Your task to perform on an android device: read, delete, or share a saved page in the chrome app Image 0: 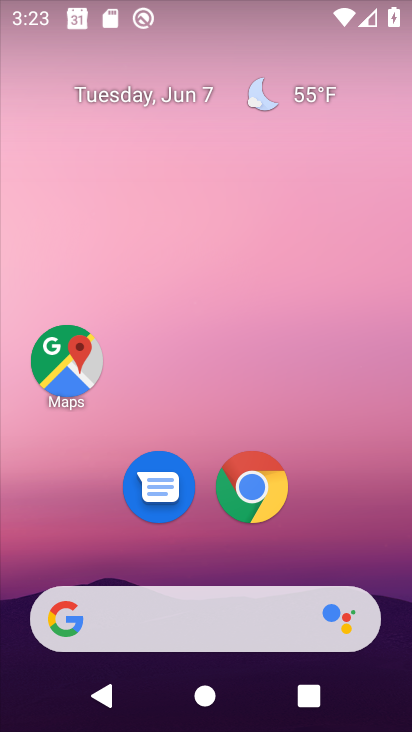
Step 0: click (259, 480)
Your task to perform on an android device: read, delete, or share a saved page in the chrome app Image 1: 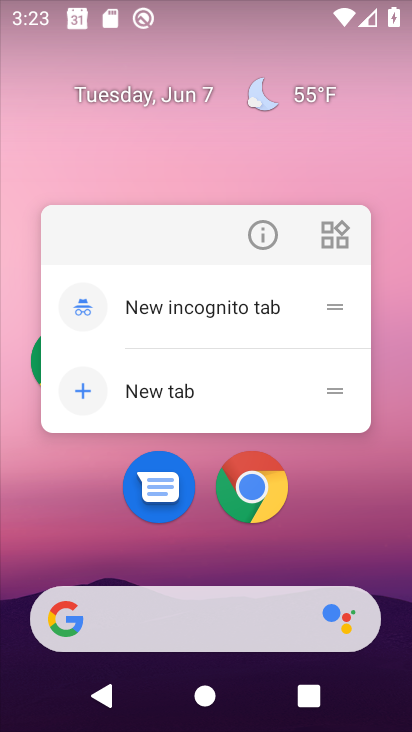
Step 1: click (259, 481)
Your task to perform on an android device: read, delete, or share a saved page in the chrome app Image 2: 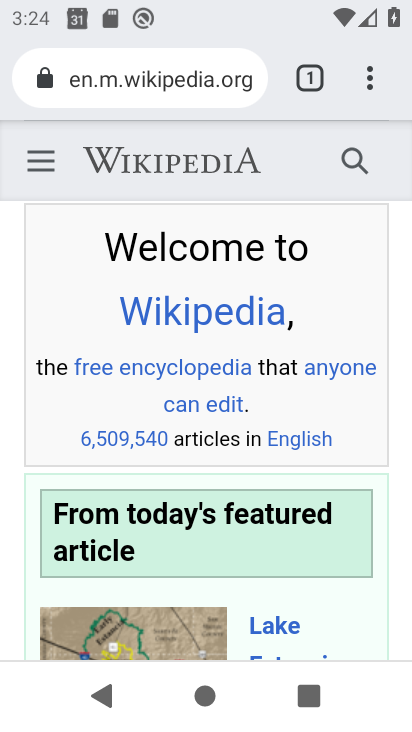
Step 2: click (361, 72)
Your task to perform on an android device: read, delete, or share a saved page in the chrome app Image 3: 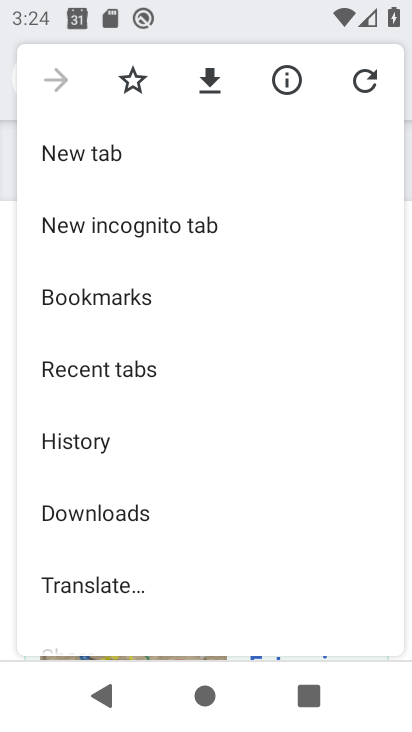
Step 3: click (113, 510)
Your task to perform on an android device: read, delete, or share a saved page in the chrome app Image 4: 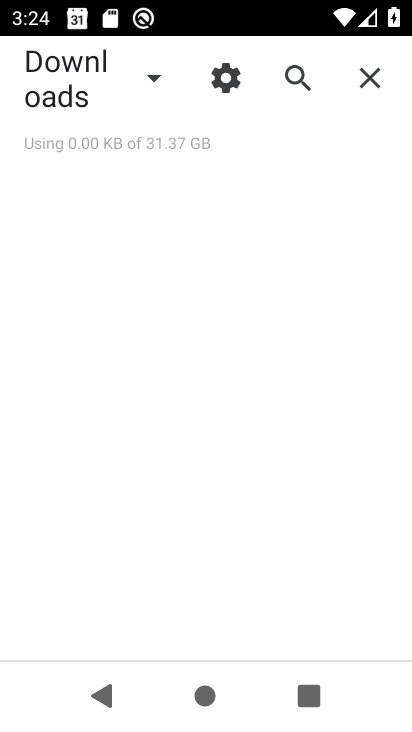
Step 4: task complete